Your task to perform on an android device: When is my next appointment? Image 0: 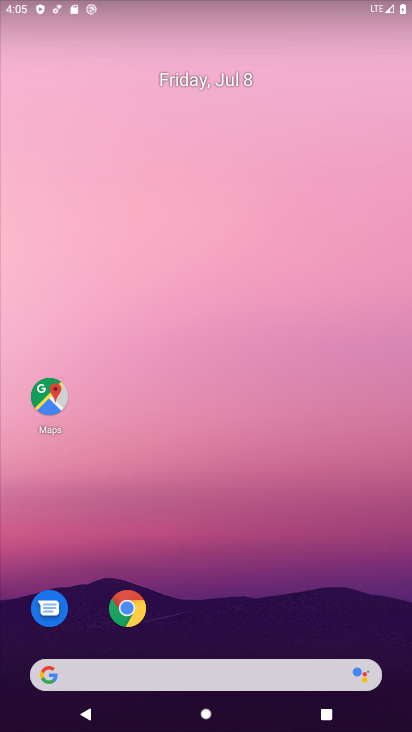
Step 0: drag from (236, 229) to (268, 37)
Your task to perform on an android device: When is my next appointment? Image 1: 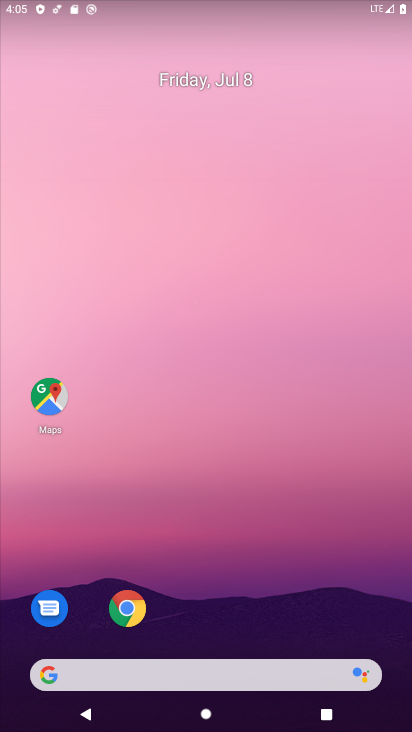
Step 1: drag from (222, 647) to (269, 89)
Your task to perform on an android device: When is my next appointment? Image 2: 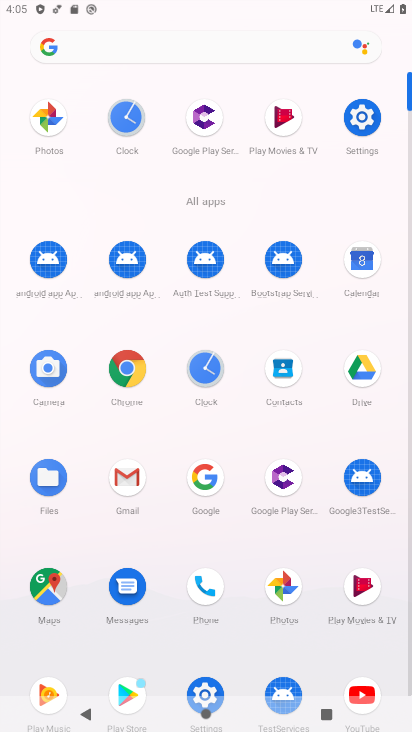
Step 2: click (366, 259)
Your task to perform on an android device: When is my next appointment? Image 3: 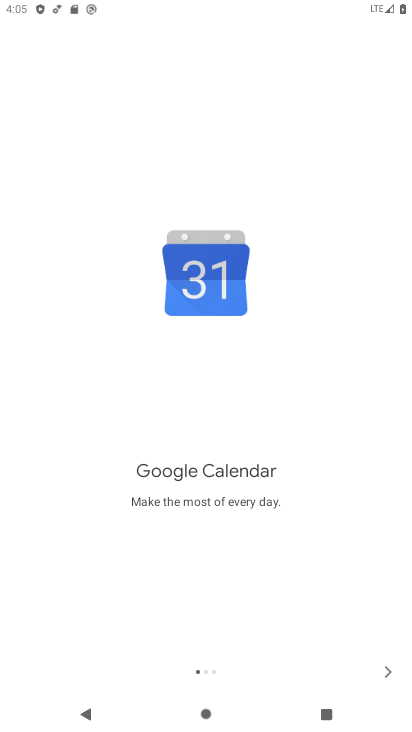
Step 3: click (387, 668)
Your task to perform on an android device: When is my next appointment? Image 4: 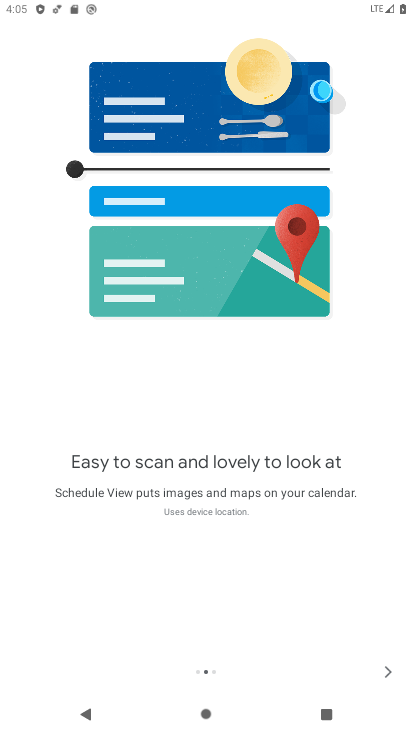
Step 4: click (387, 668)
Your task to perform on an android device: When is my next appointment? Image 5: 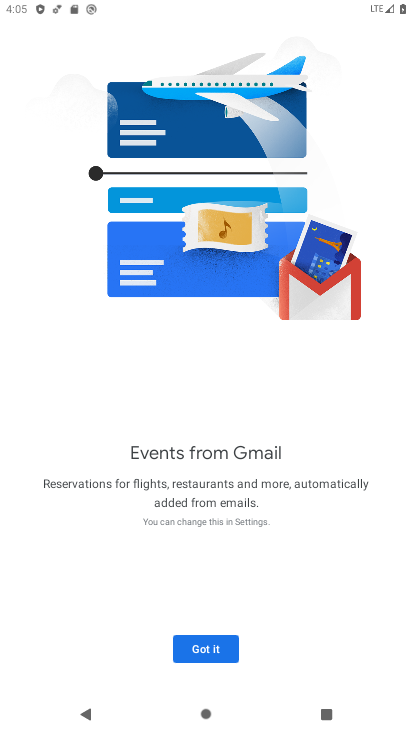
Step 5: click (208, 645)
Your task to perform on an android device: When is my next appointment? Image 6: 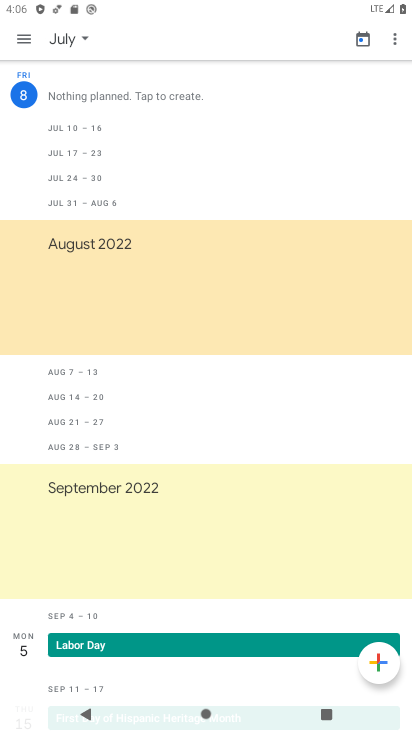
Step 6: click (24, 43)
Your task to perform on an android device: When is my next appointment? Image 7: 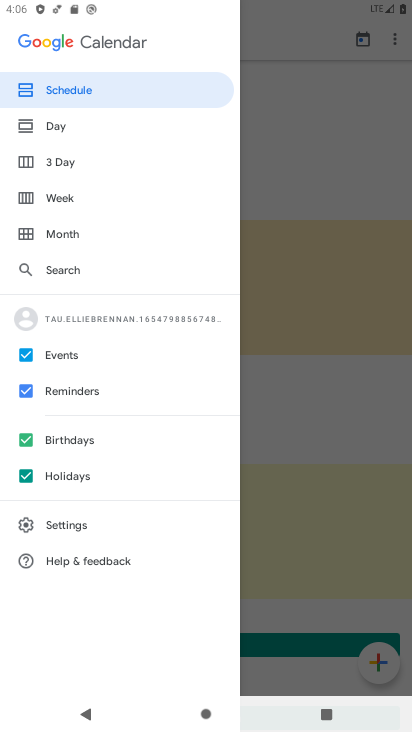
Step 7: click (53, 192)
Your task to perform on an android device: When is my next appointment? Image 8: 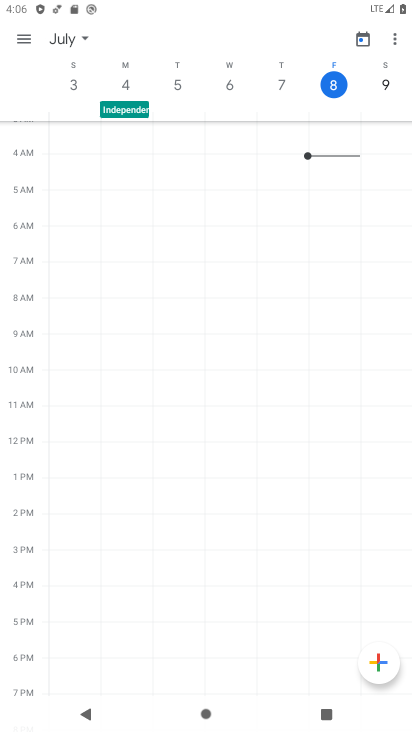
Step 8: task complete